Your task to perform on an android device: open sync settings in chrome Image 0: 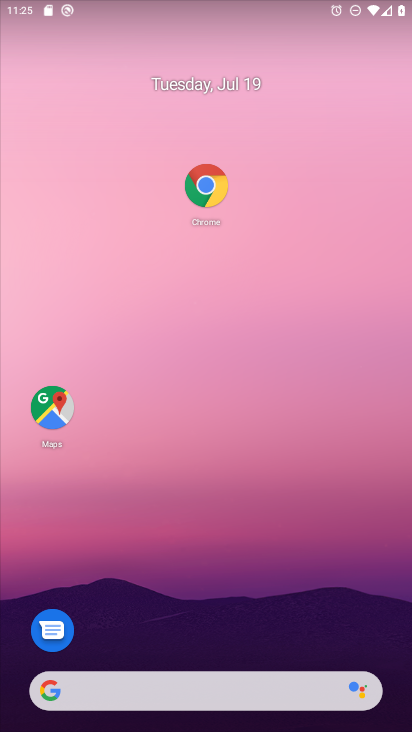
Step 0: drag from (187, 624) to (214, 263)
Your task to perform on an android device: open sync settings in chrome Image 1: 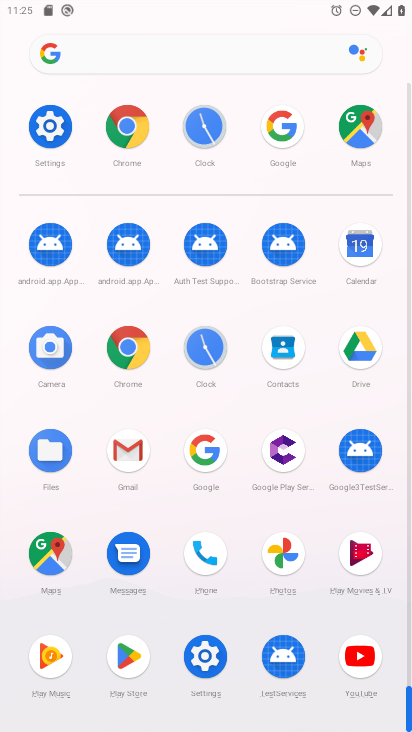
Step 1: click (129, 148)
Your task to perform on an android device: open sync settings in chrome Image 2: 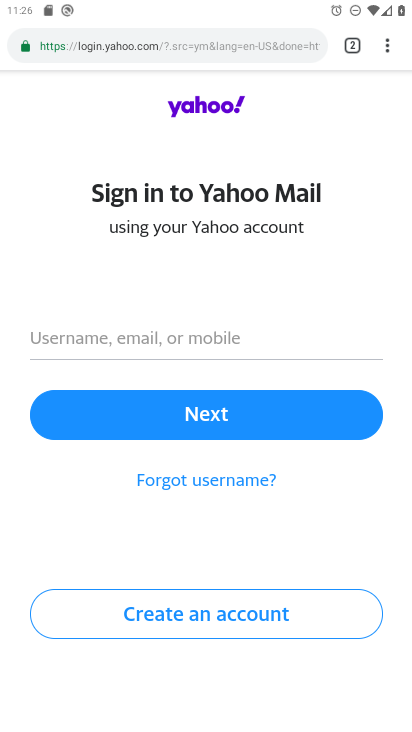
Step 2: click (385, 42)
Your task to perform on an android device: open sync settings in chrome Image 3: 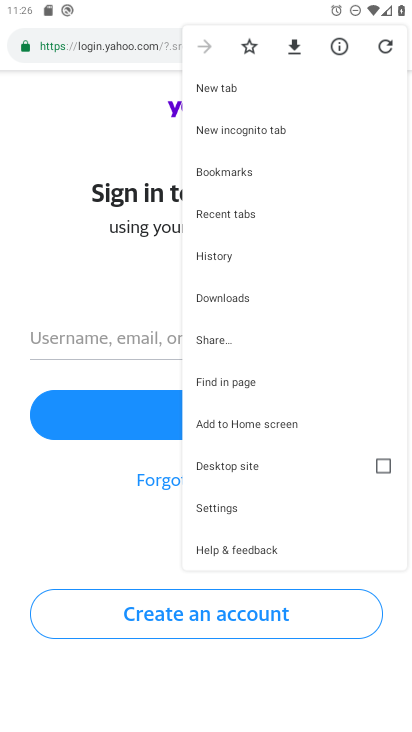
Step 3: click (227, 508)
Your task to perform on an android device: open sync settings in chrome Image 4: 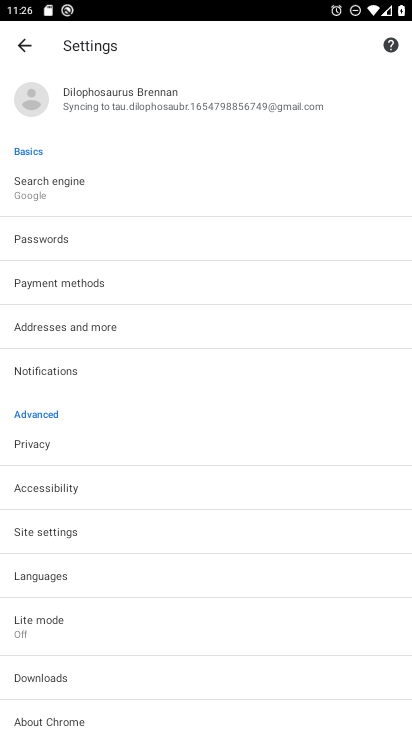
Step 4: click (178, 98)
Your task to perform on an android device: open sync settings in chrome Image 5: 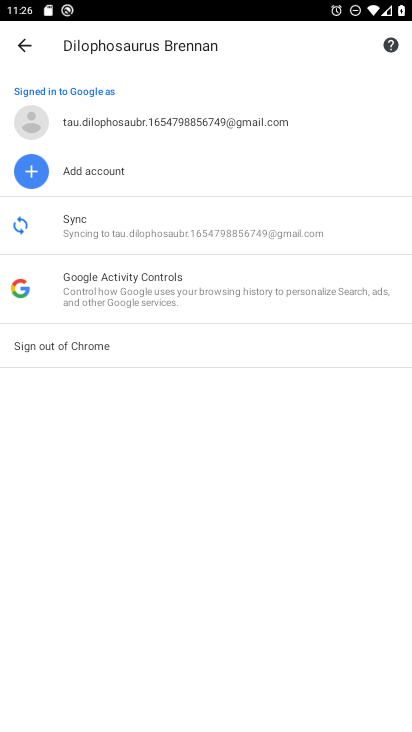
Step 5: click (139, 229)
Your task to perform on an android device: open sync settings in chrome Image 6: 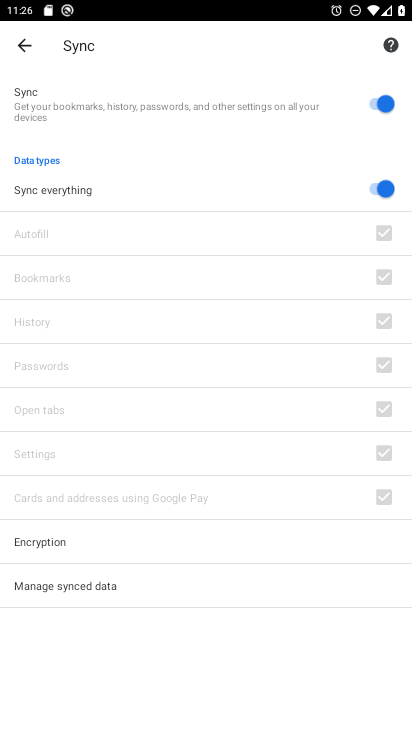
Step 6: task complete